Your task to perform on an android device: Open Google Chrome Image 0: 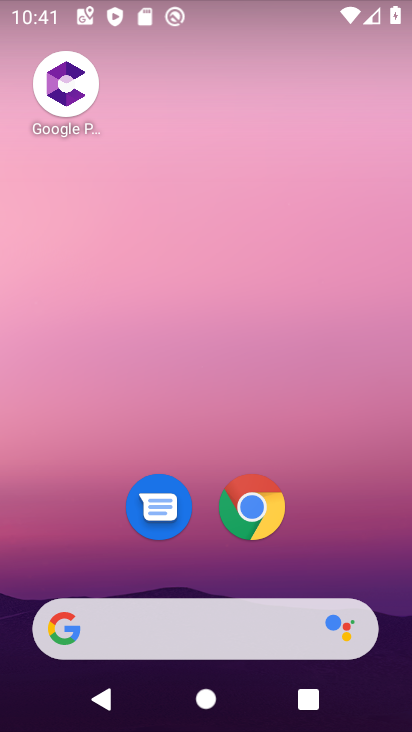
Step 0: click (263, 516)
Your task to perform on an android device: Open Google Chrome Image 1: 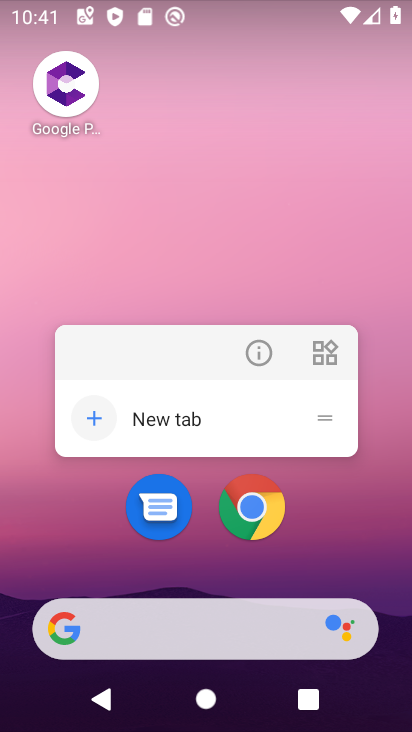
Step 1: click (262, 515)
Your task to perform on an android device: Open Google Chrome Image 2: 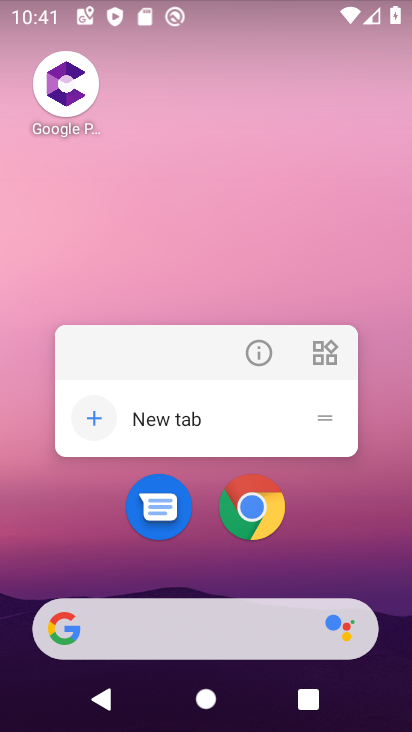
Step 2: click (262, 512)
Your task to perform on an android device: Open Google Chrome Image 3: 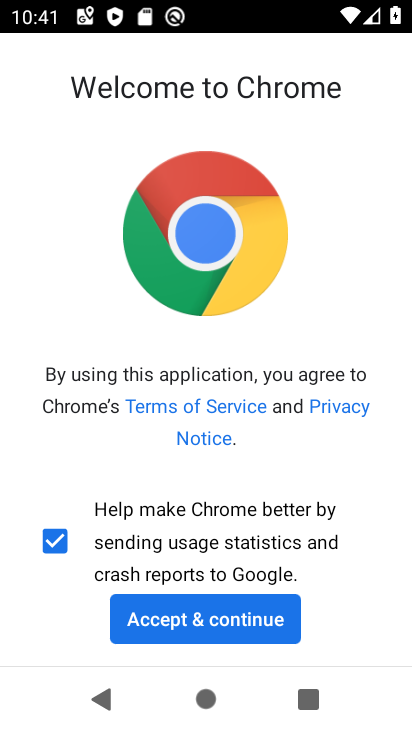
Step 3: click (251, 610)
Your task to perform on an android device: Open Google Chrome Image 4: 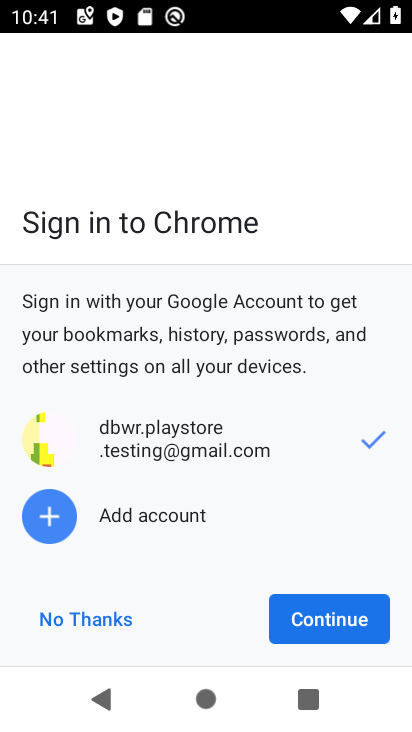
Step 4: click (290, 617)
Your task to perform on an android device: Open Google Chrome Image 5: 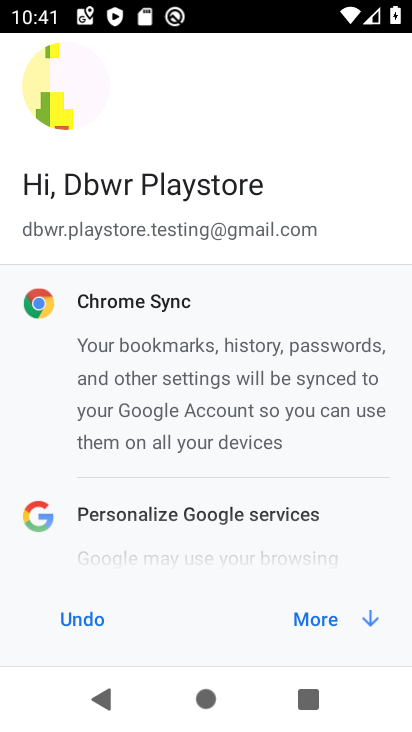
Step 5: click (295, 616)
Your task to perform on an android device: Open Google Chrome Image 6: 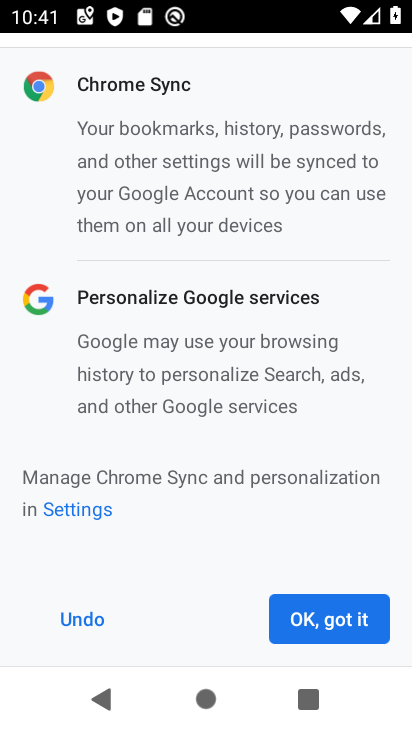
Step 6: click (295, 616)
Your task to perform on an android device: Open Google Chrome Image 7: 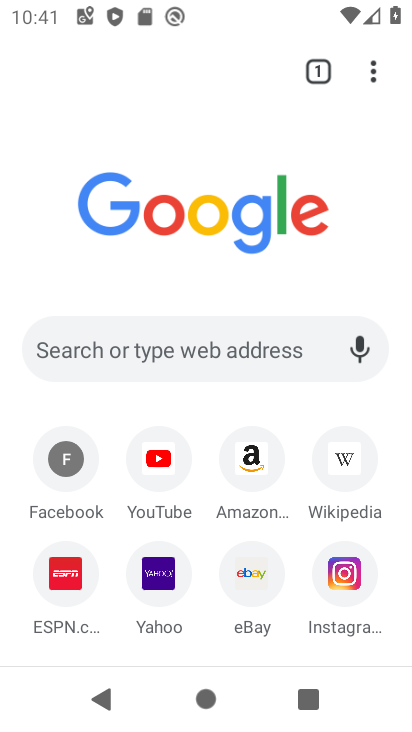
Step 7: task complete